Your task to perform on an android device: turn off notifications in google photos Image 0: 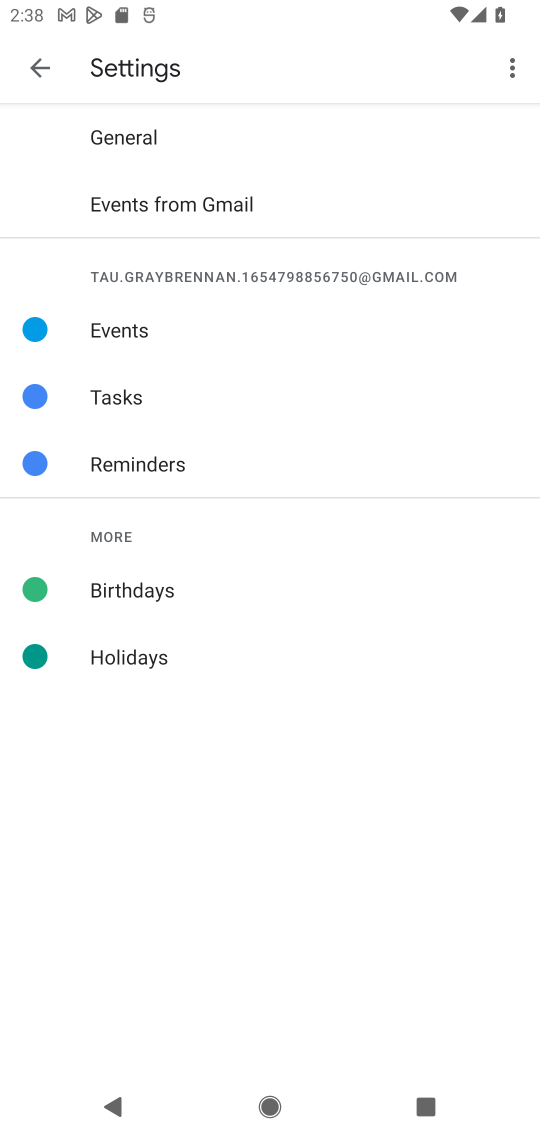
Step 0: press home button
Your task to perform on an android device: turn off notifications in google photos Image 1: 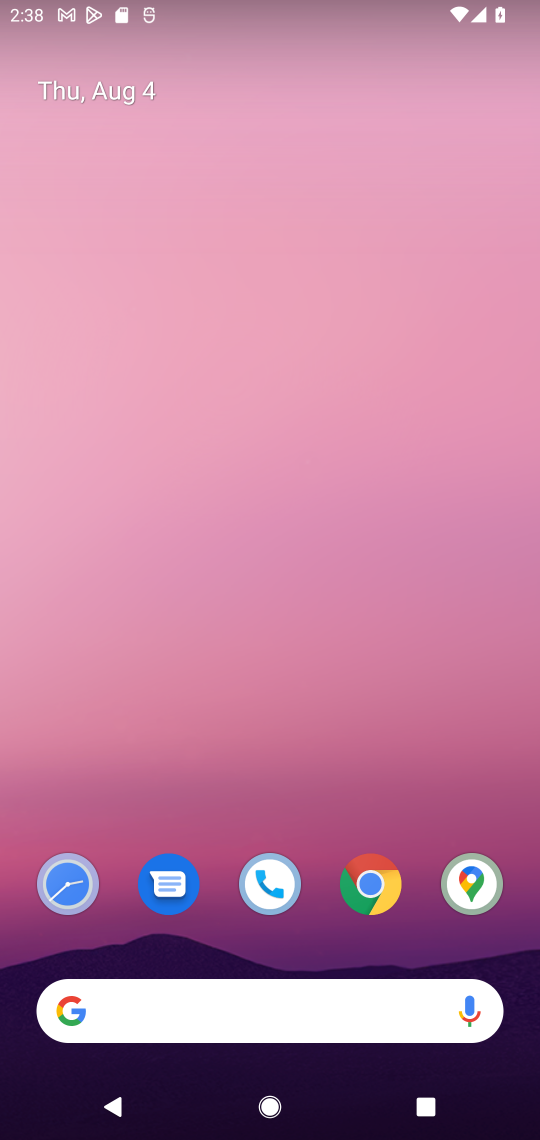
Step 1: drag from (210, 970) to (270, 171)
Your task to perform on an android device: turn off notifications in google photos Image 2: 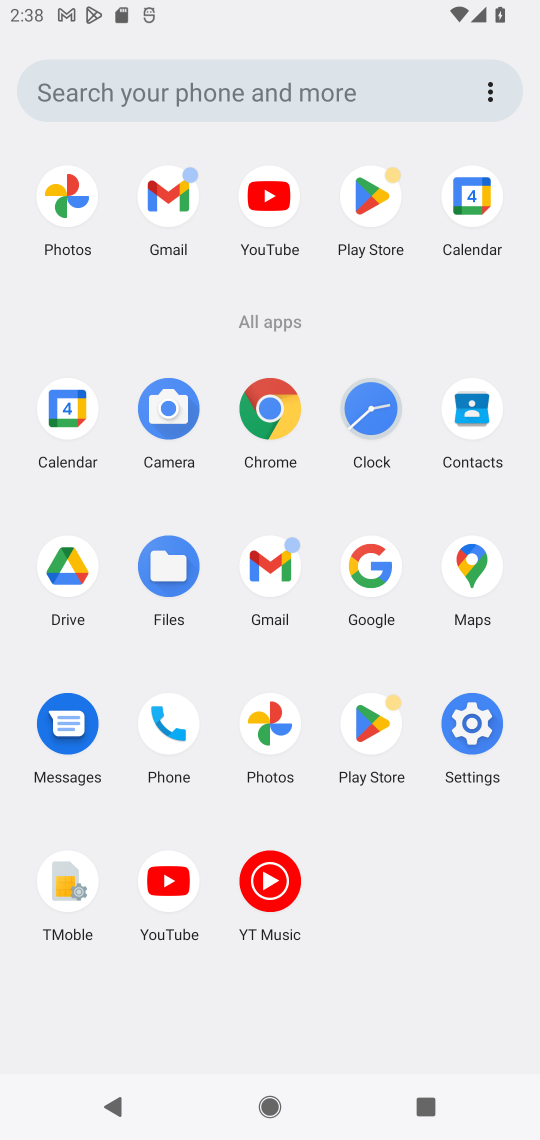
Step 2: click (287, 721)
Your task to perform on an android device: turn off notifications in google photos Image 3: 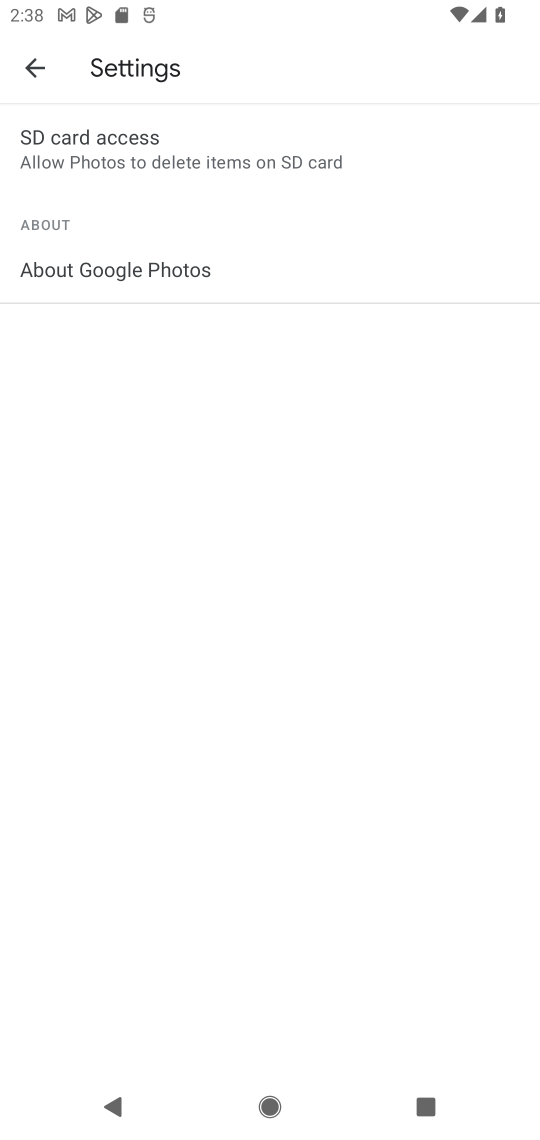
Step 3: click (23, 83)
Your task to perform on an android device: turn off notifications in google photos Image 4: 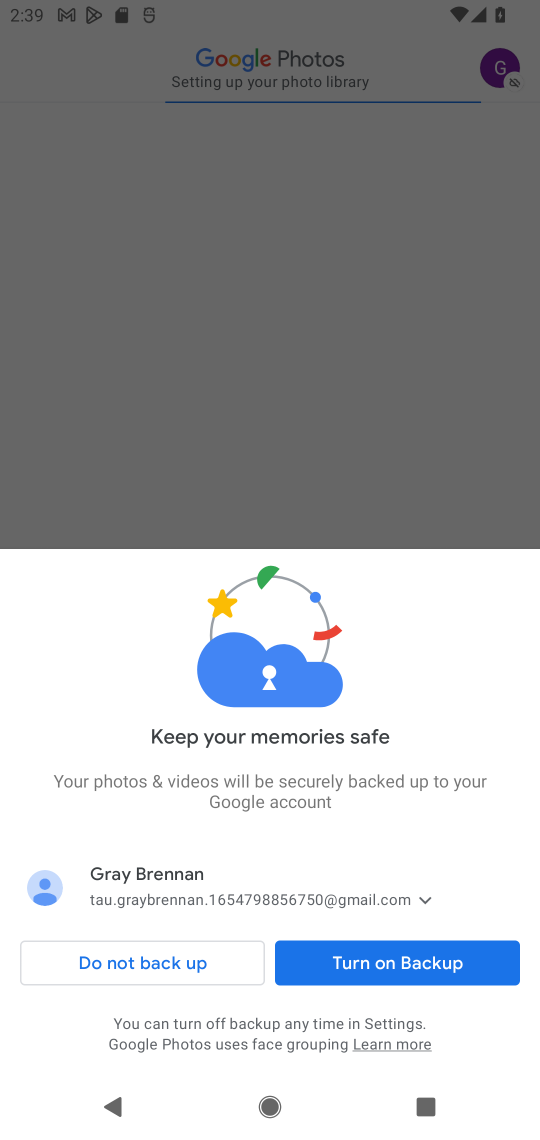
Step 4: task complete